Your task to perform on an android device: Show the shopping cart on ebay.com. Add "acer nitro" to the cart on ebay.com, then select checkout. Image 0: 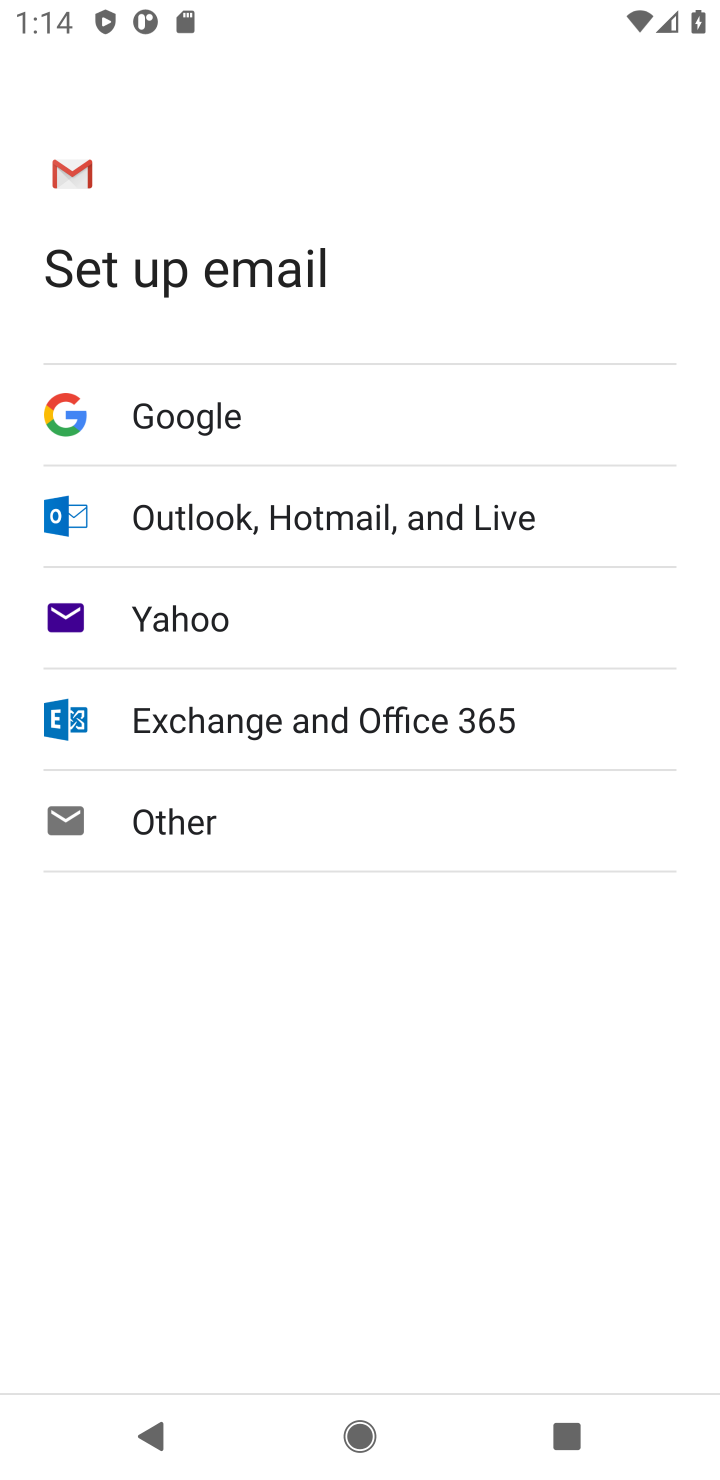
Step 0: press home button
Your task to perform on an android device: Show the shopping cart on ebay.com. Add "acer nitro" to the cart on ebay.com, then select checkout. Image 1: 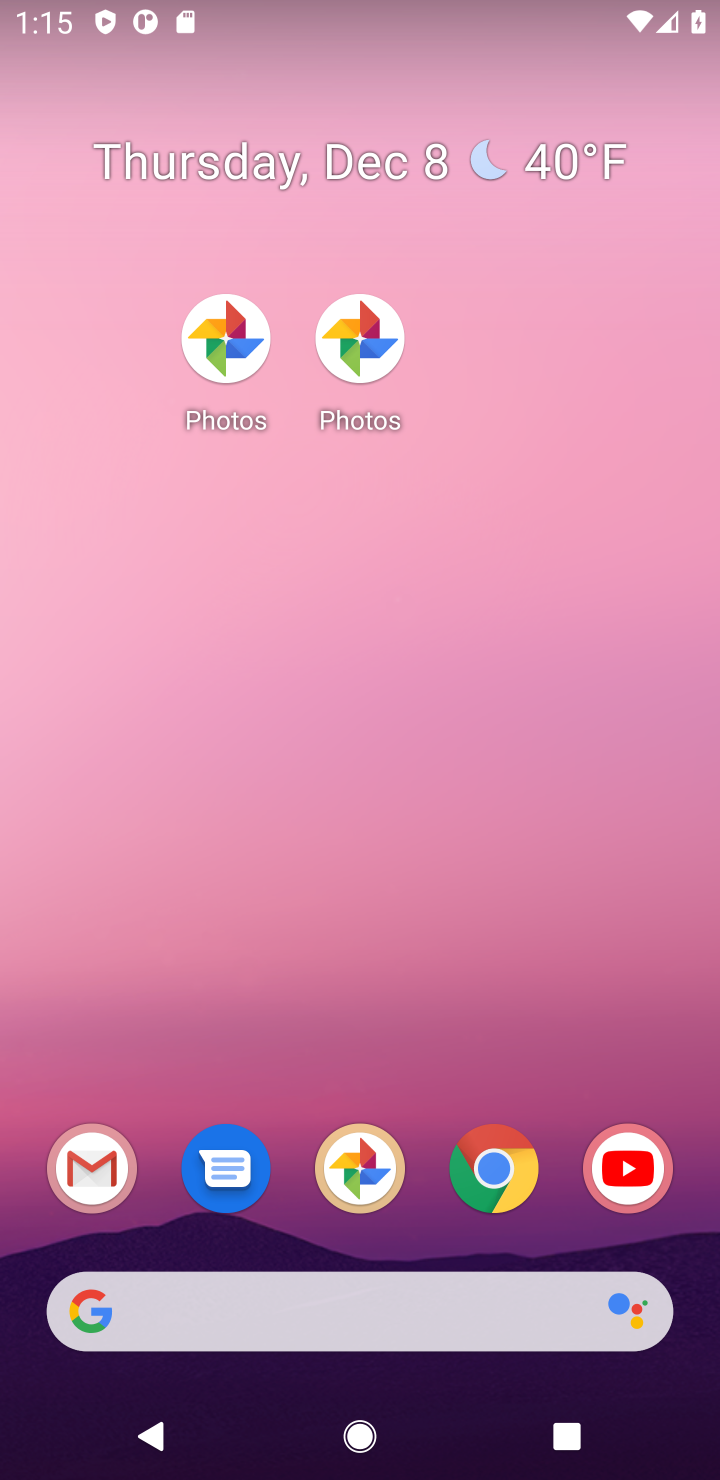
Step 1: drag from (325, 1214) to (327, 359)
Your task to perform on an android device: Show the shopping cart on ebay.com. Add "acer nitro" to the cart on ebay.com, then select checkout. Image 2: 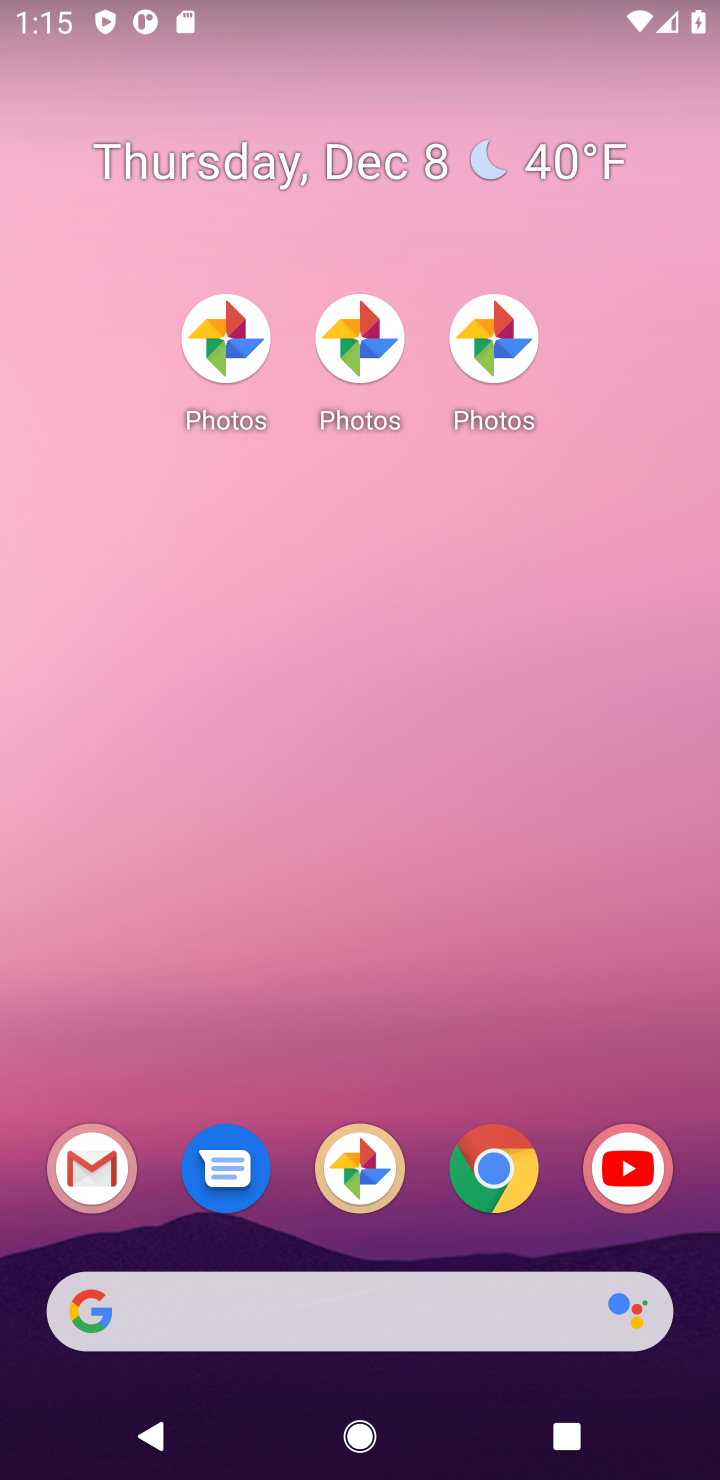
Step 2: drag from (366, 1300) to (396, 229)
Your task to perform on an android device: Show the shopping cart on ebay.com. Add "acer nitro" to the cart on ebay.com, then select checkout. Image 3: 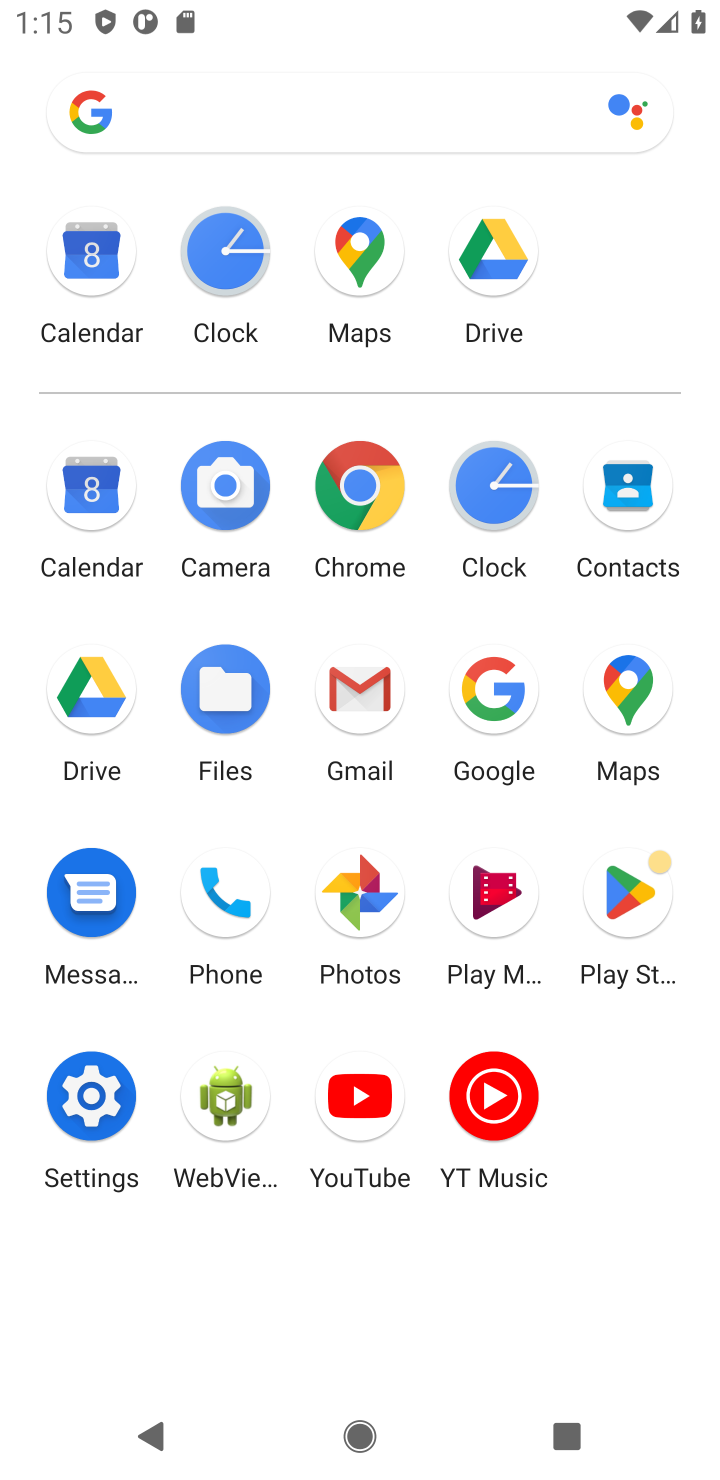
Step 3: click (482, 677)
Your task to perform on an android device: Show the shopping cart on ebay.com. Add "acer nitro" to the cart on ebay.com, then select checkout. Image 4: 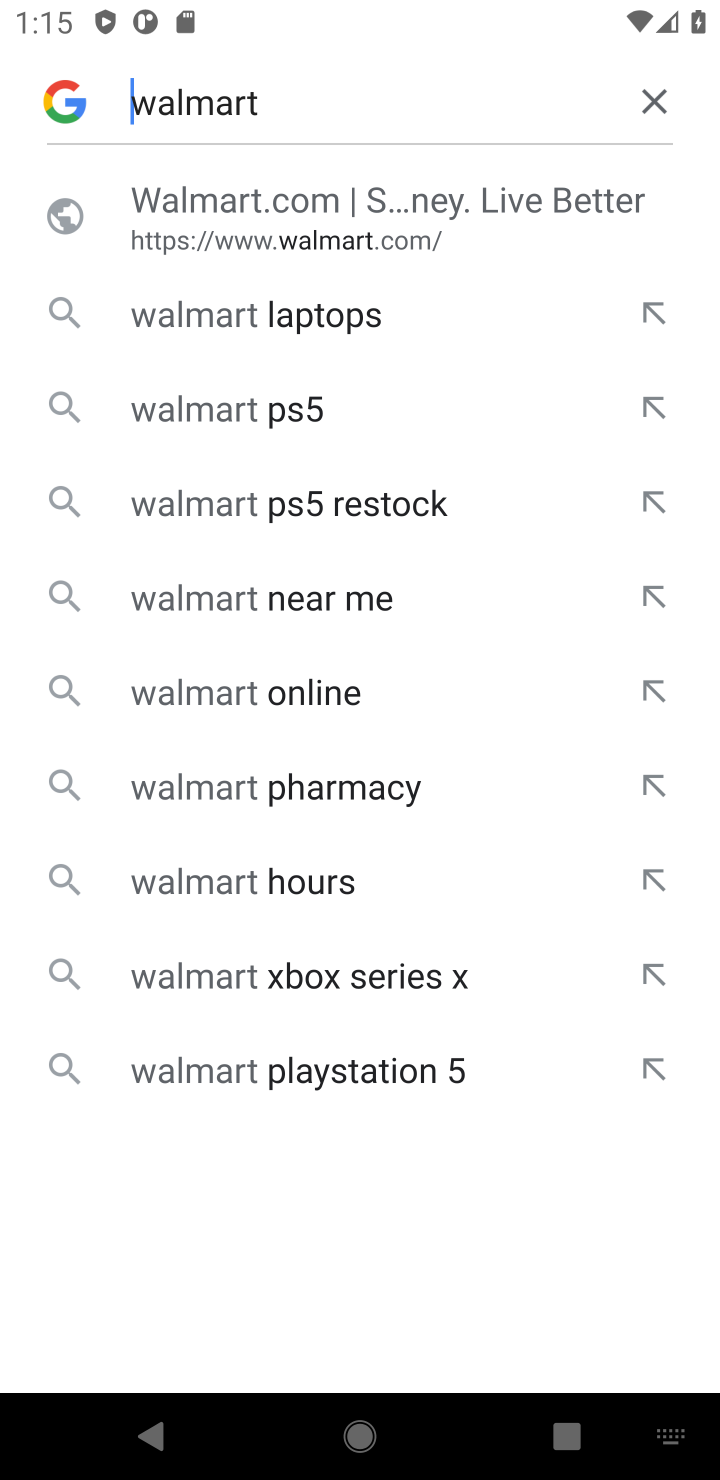
Step 4: click (655, 91)
Your task to perform on an android device: Show the shopping cart on ebay.com. Add "acer nitro" to the cart on ebay.com, then select checkout. Image 5: 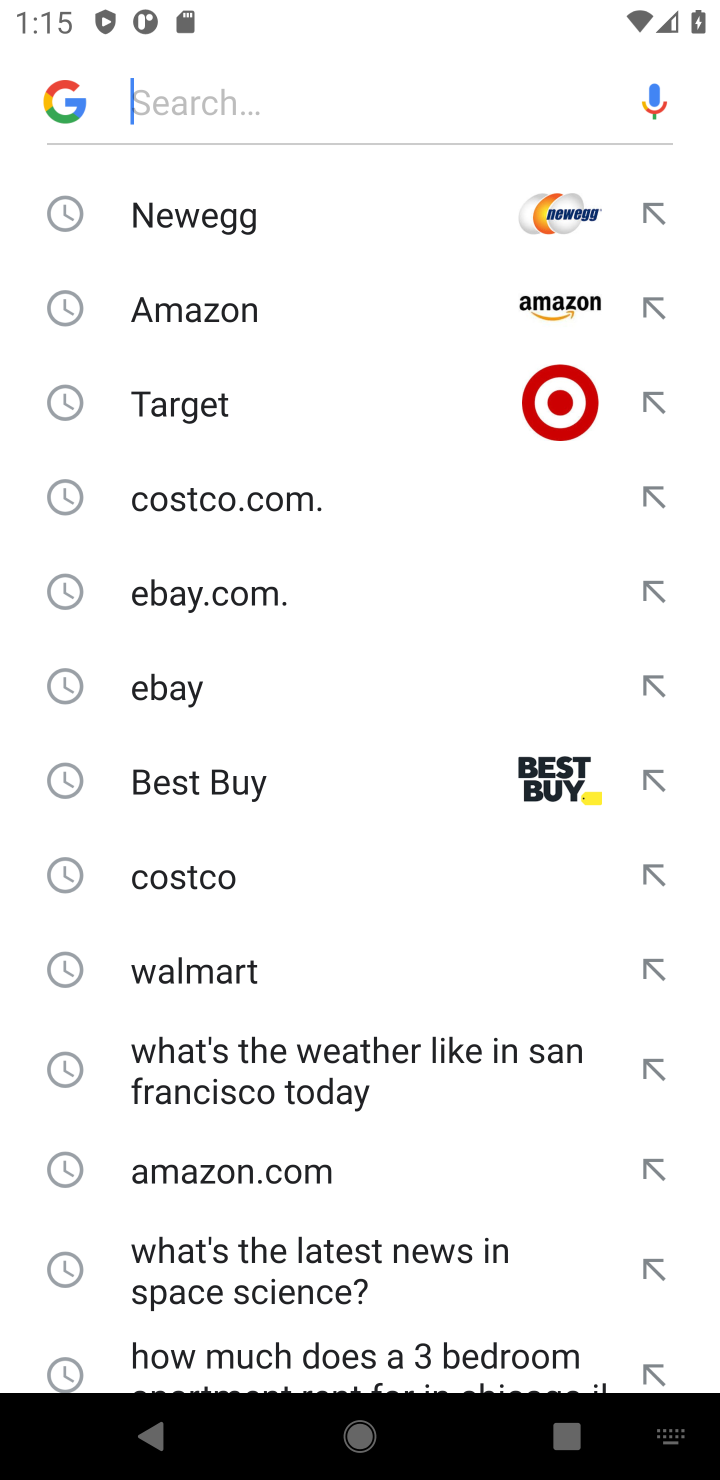
Step 5: click (181, 677)
Your task to perform on an android device: Show the shopping cart on ebay.com. Add "acer nitro" to the cart on ebay.com, then select checkout. Image 6: 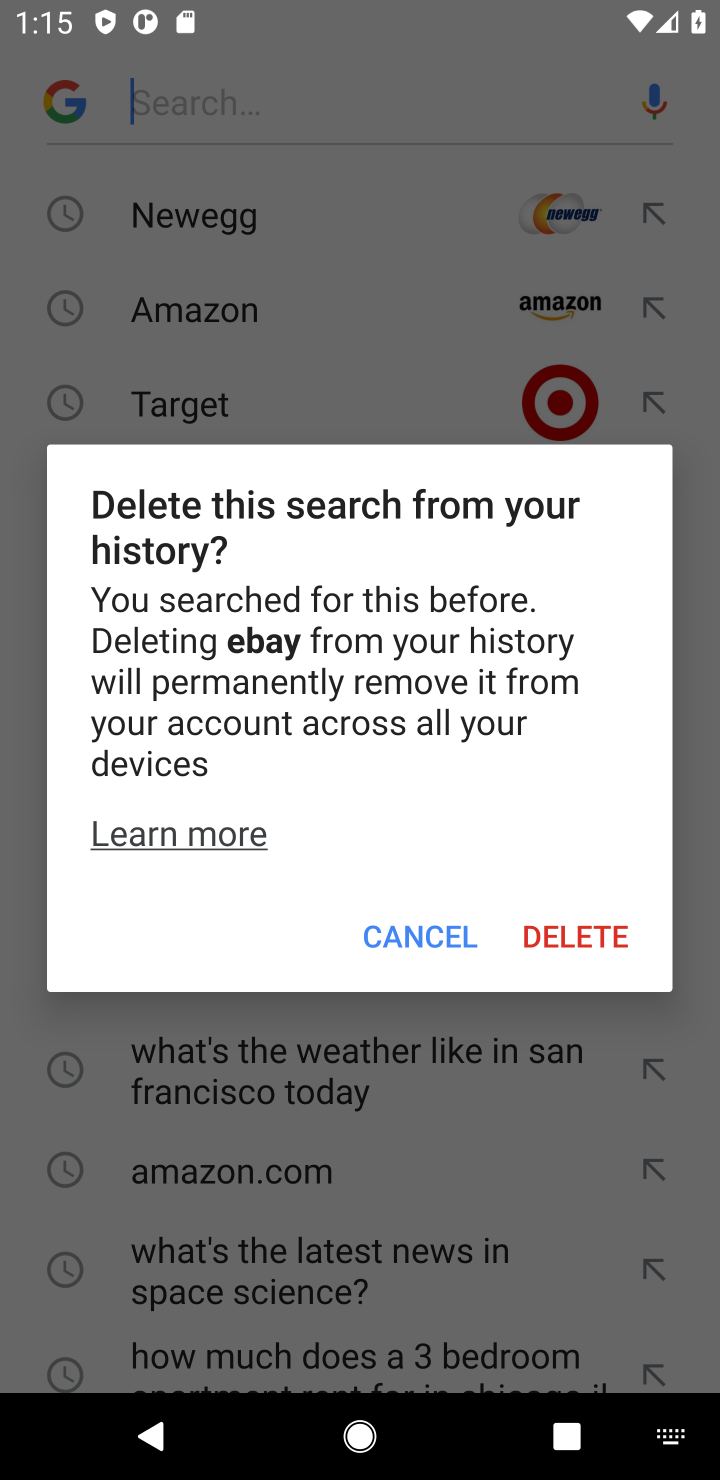
Step 6: click (402, 937)
Your task to perform on an android device: Show the shopping cart on ebay.com. Add "acer nitro" to the cart on ebay.com, then select checkout. Image 7: 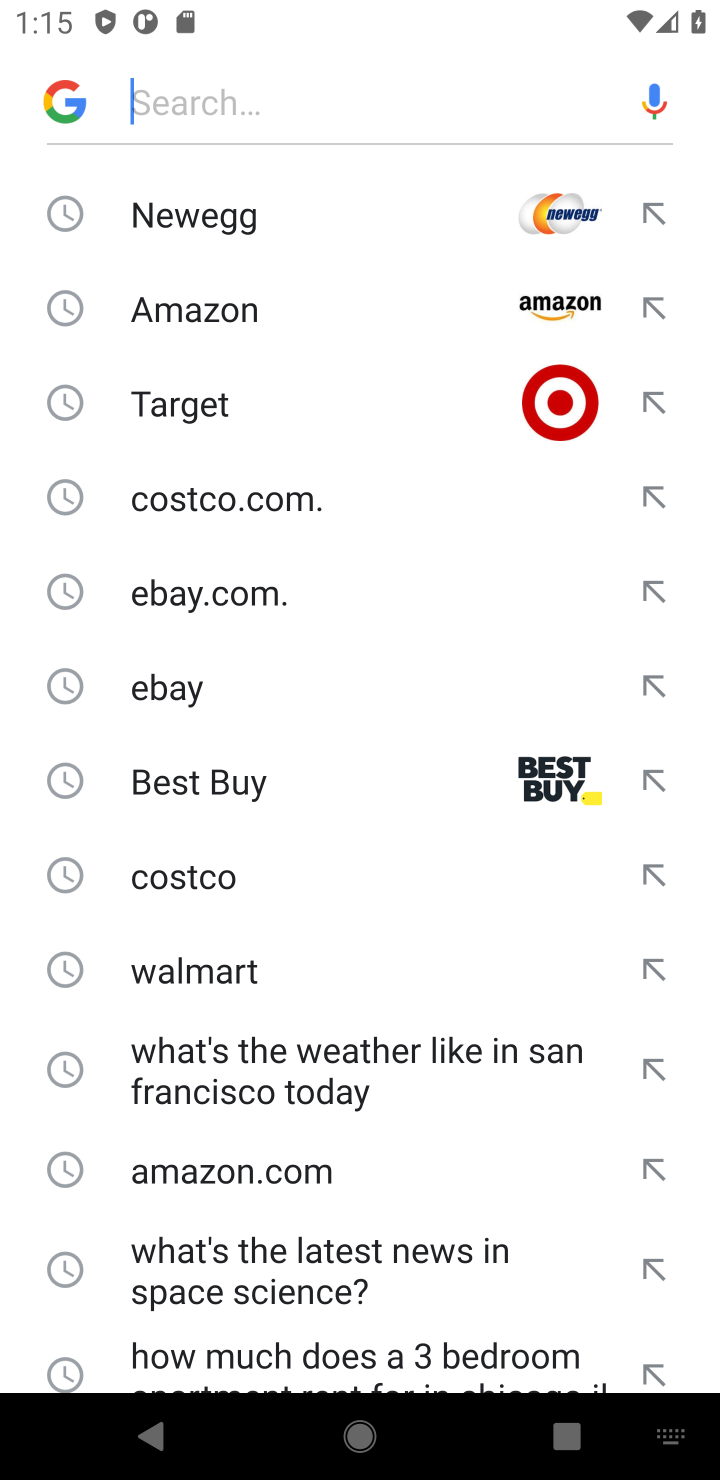
Step 7: click (649, 690)
Your task to perform on an android device: Show the shopping cart on ebay.com. Add "acer nitro" to the cart on ebay.com, then select checkout. Image 8: 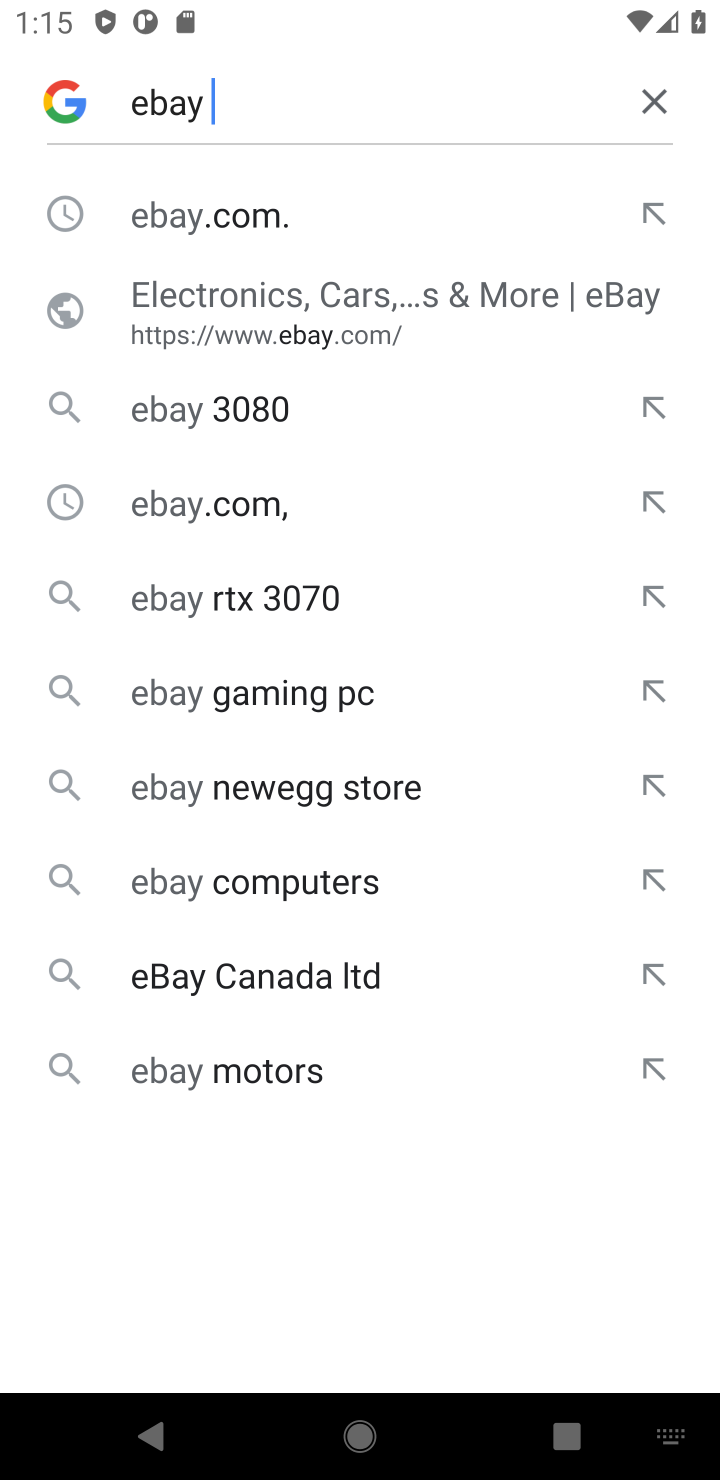
Step 8: click (193, 206)
Your task to perform on an android device: Show the shopping cart on ebay.com. Add "acer nitro" to the cart on ebay.com, then select checkout. Image 9: 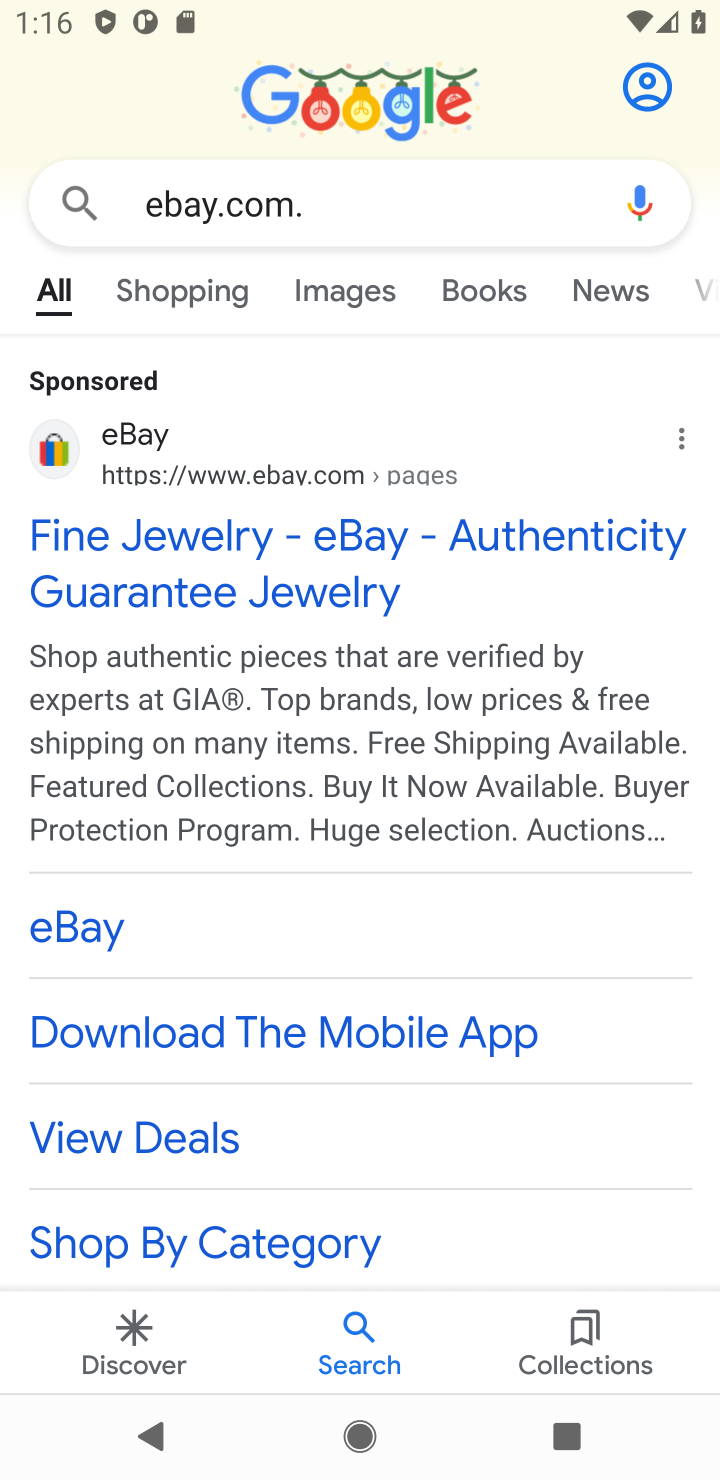
Step 9: click (70, 926)
Your task to perform on an android device: Show the shopping cart on ebay.com. Add "acer nitro" to the cart on ebay.com, then select checkout. Image 10: 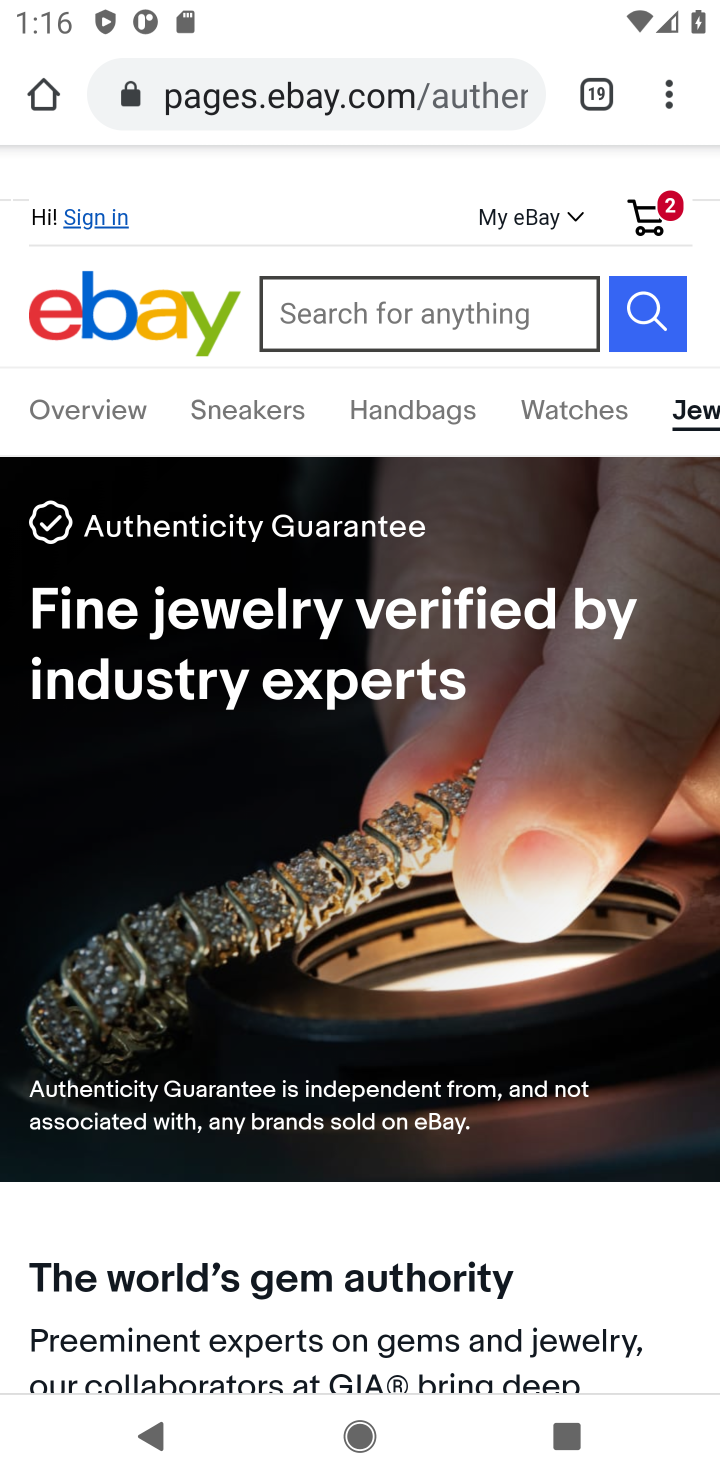
Step 10: click (403, 322)
Your task to perform on an android device: Show the shopping cart on ebay.com. Add "acer nitro" to the cart on ebay.com, then select checkout. Image 11: 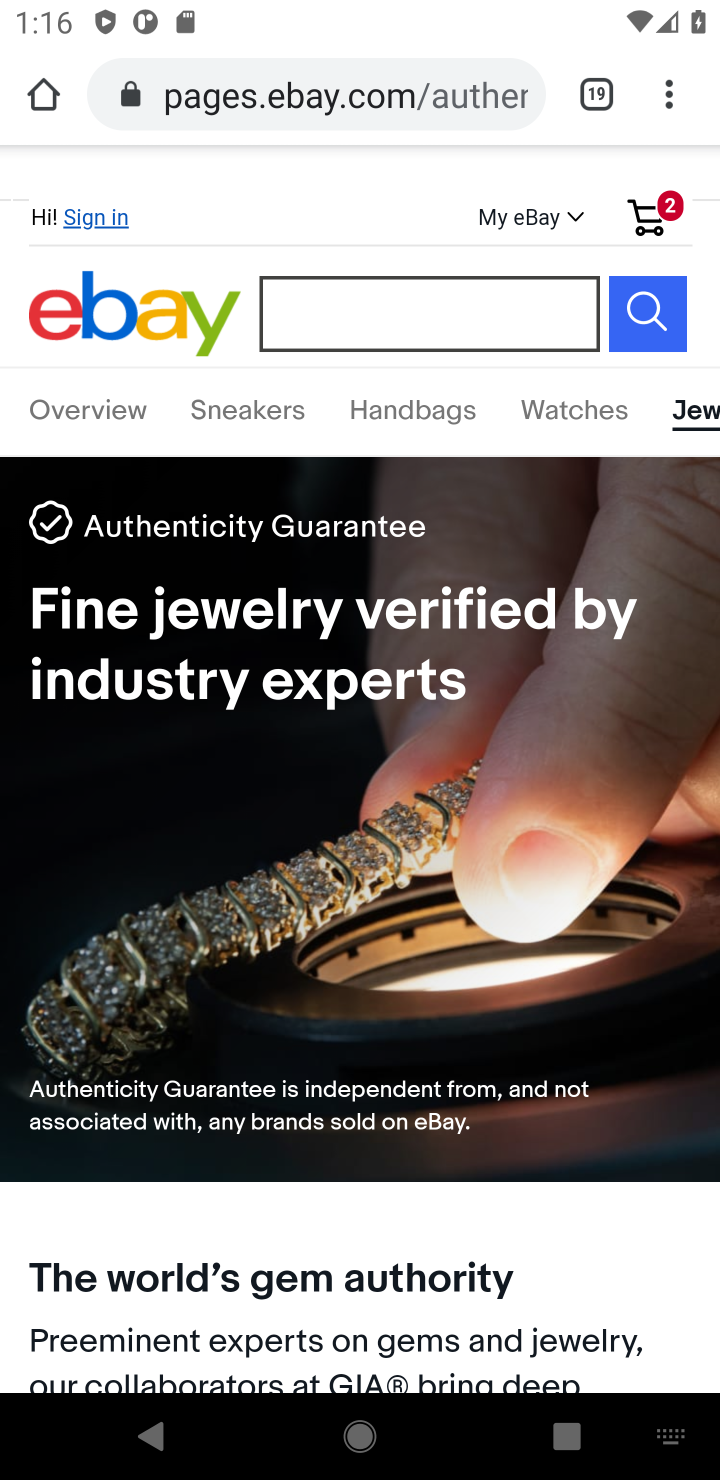
Step 11: type "acer nitro"
Your task to perform on an android device: Show the shopping cart on ebay.com. Add "acer nitro" to the cart on ebay.com, then select checkout. Image 12: 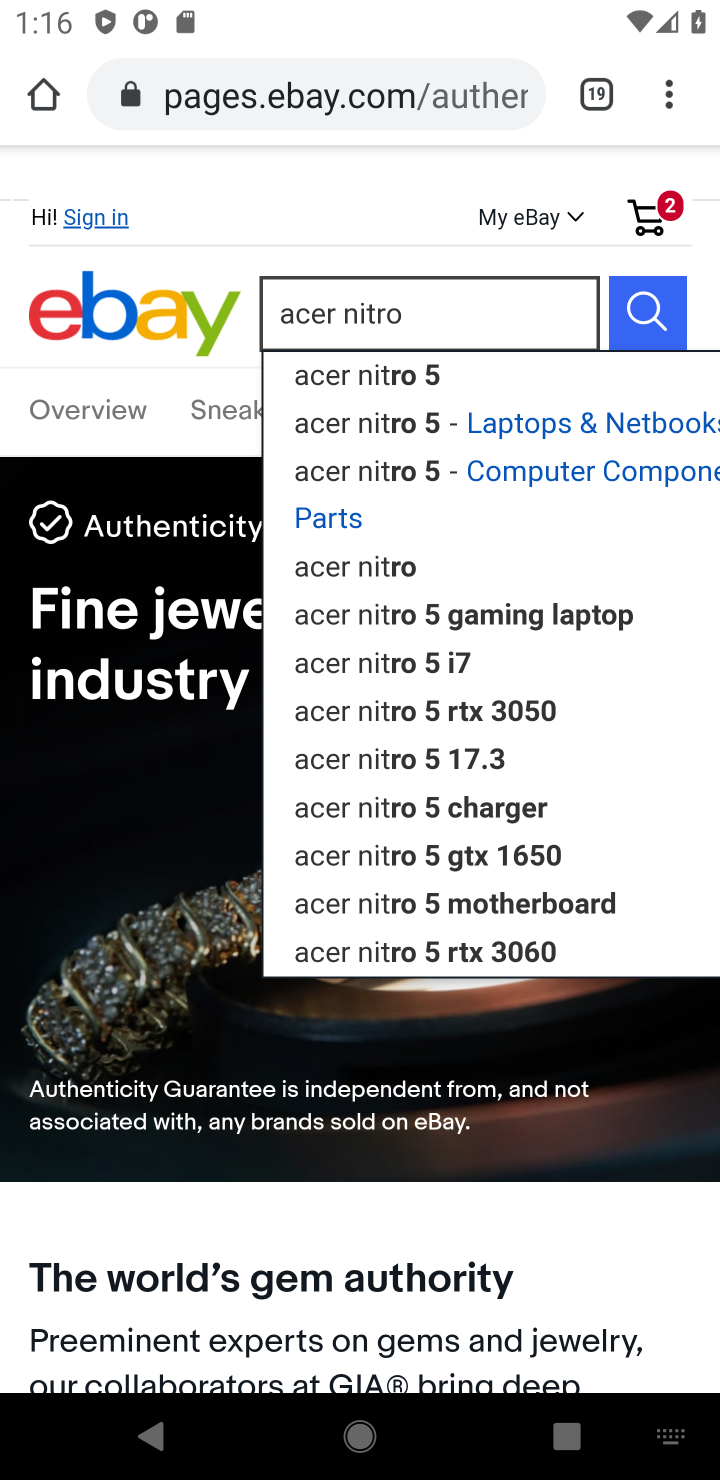
Step 12: click (368, 381)
Your task to perform on an android device: Show the shopping cart on ebay.com. Add "acer nitro" to the cart on ebay.com, then select checkout. Image 13: 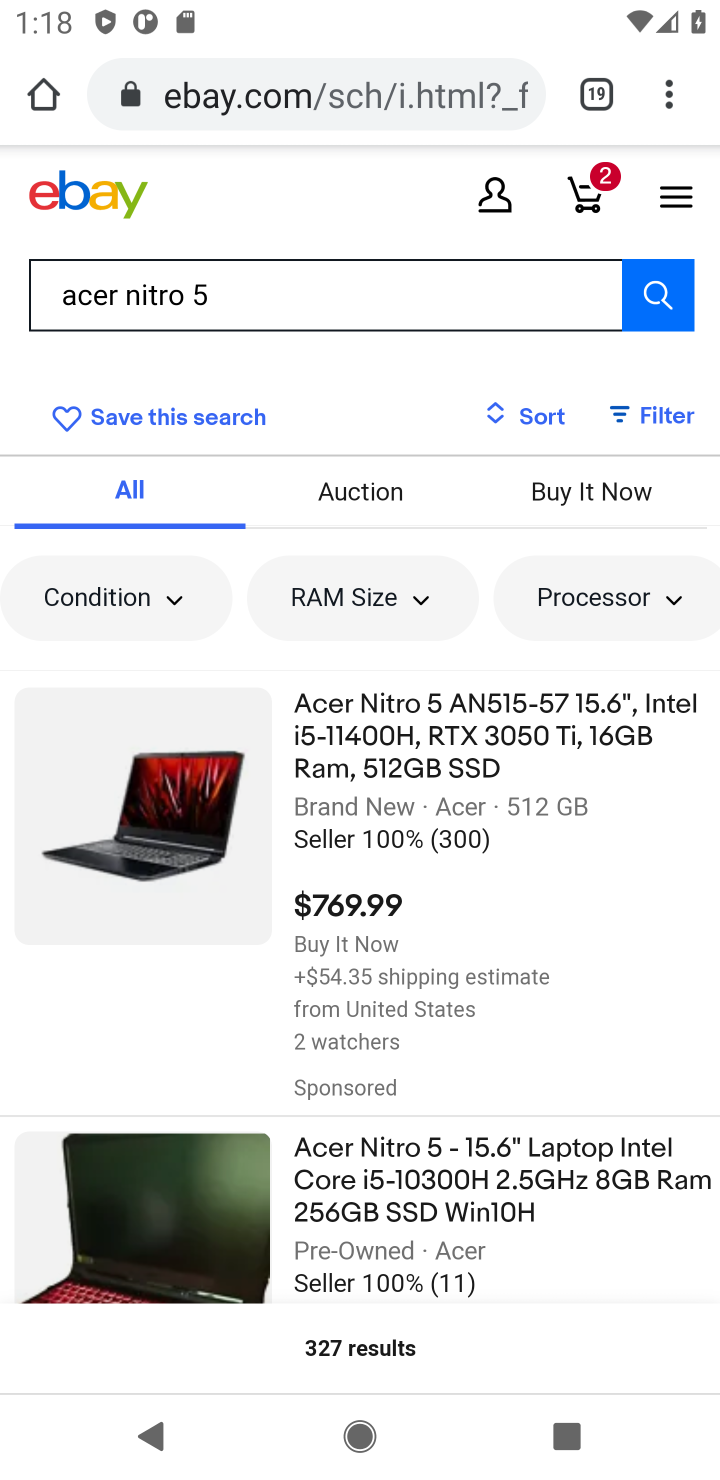
Step 13: click (329, 762)
Your task to perform on an android device: Show the shopping cart on ebay.com. Add "acer nitro" to the cart on ebay.com, then select checkout. Image 14: 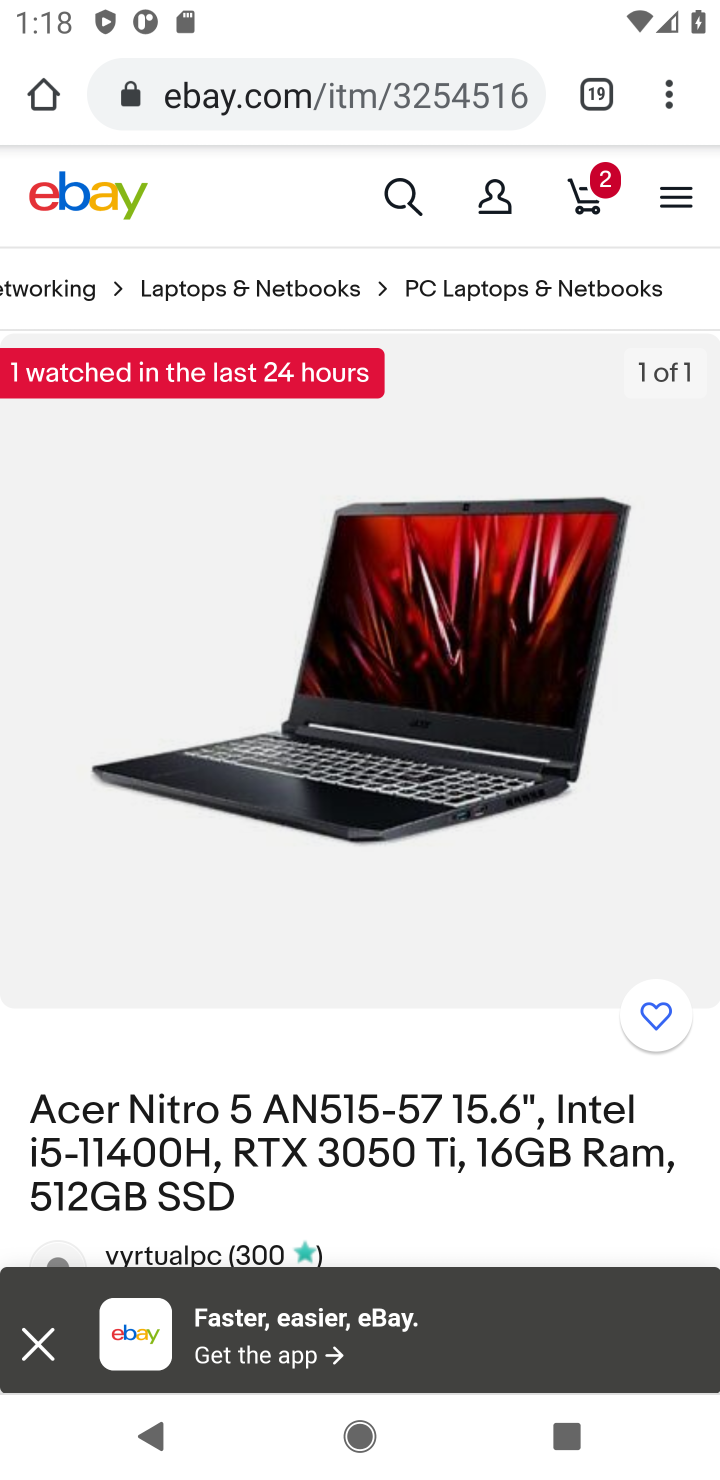
Step 14: click (51, 1352)
Your task to perform on an android device: Show the shopping cart on ebay.com. Add "acer nitro" to the cart on ebay.com, then select checkout. Image 15: 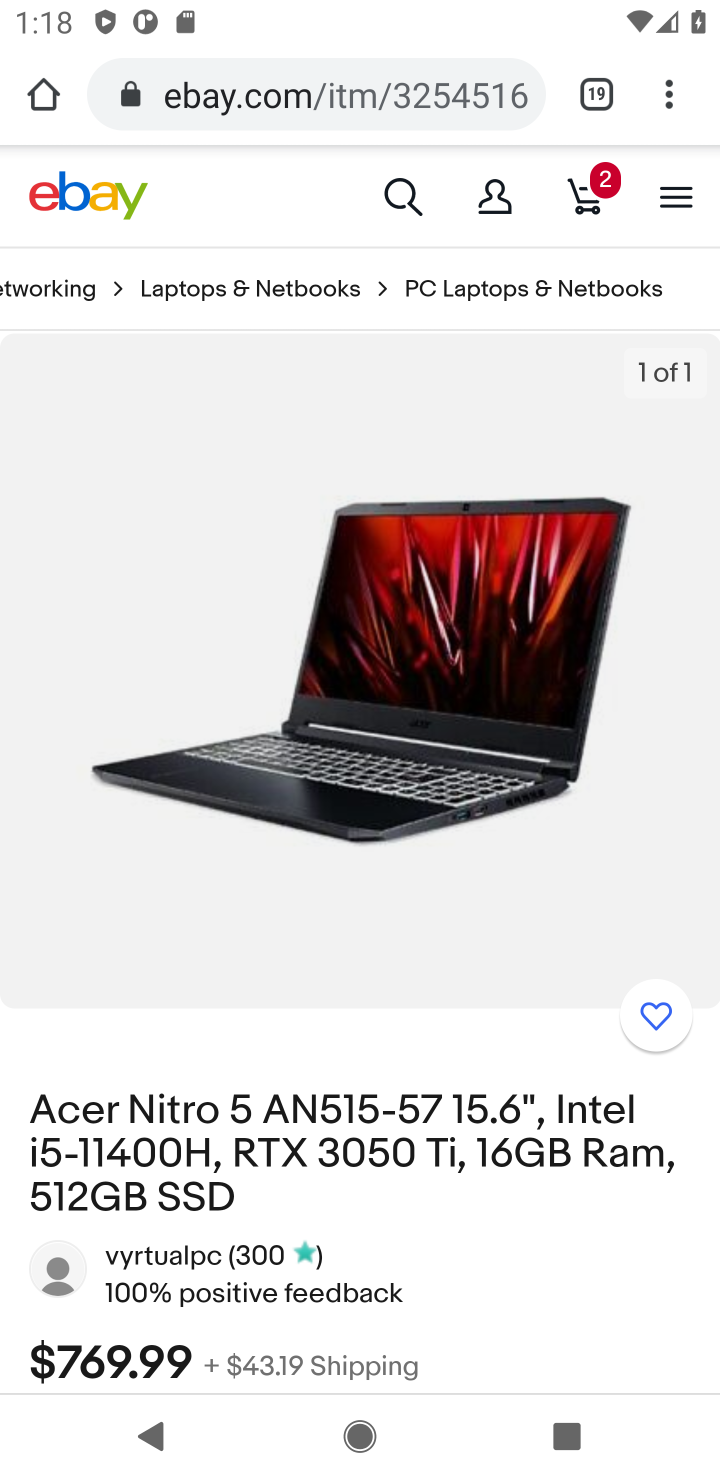
Step 15: drag from (386, 1349) to (417, 673)
Your task to perform on an android device: Show the shopping cart on ebay.com. Add "acer nitro" to the cart on ebay.com, then select checkout. Image 16: 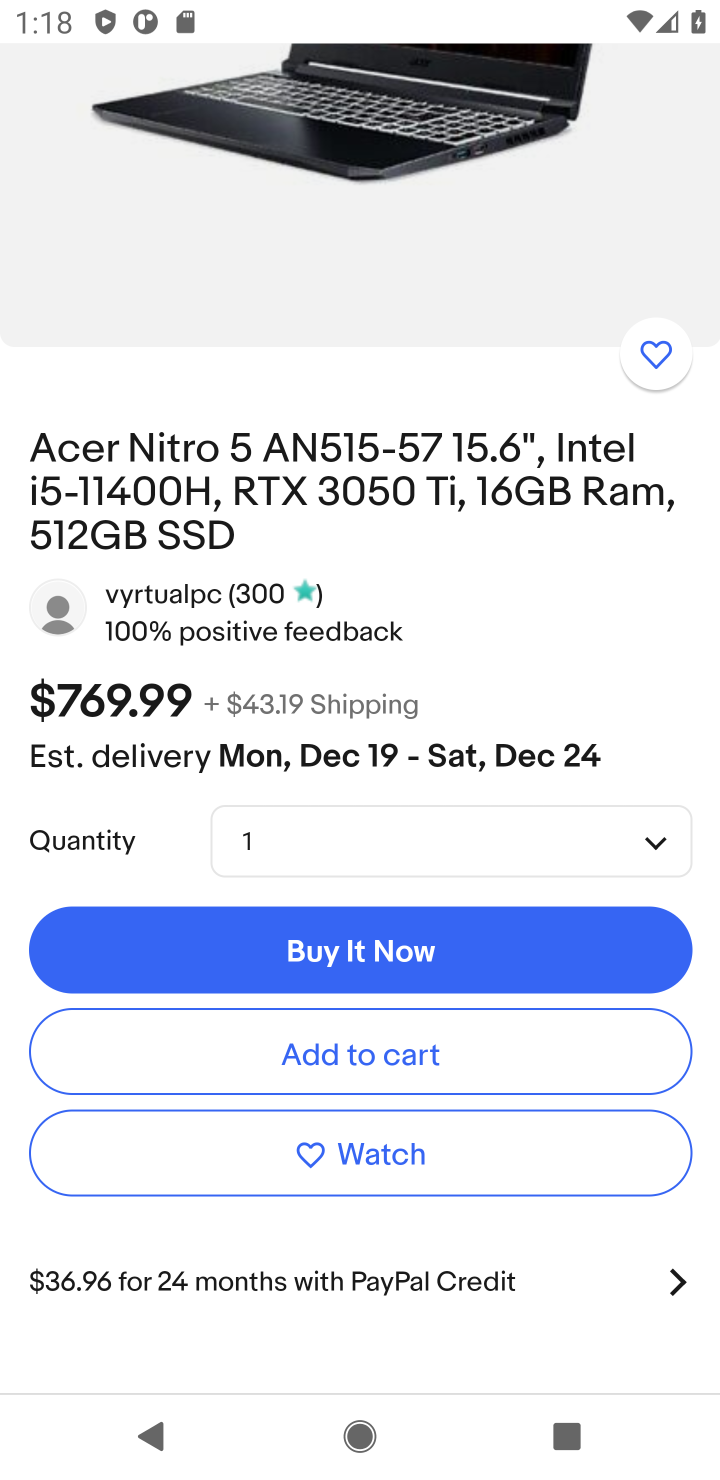
Step 16: click (332, 1059)
Your task to perform on an android device: Show the shopping cart on ebay.com. Add "acer nitro" to the cart on ebay.com, then select checkout. Image 17: 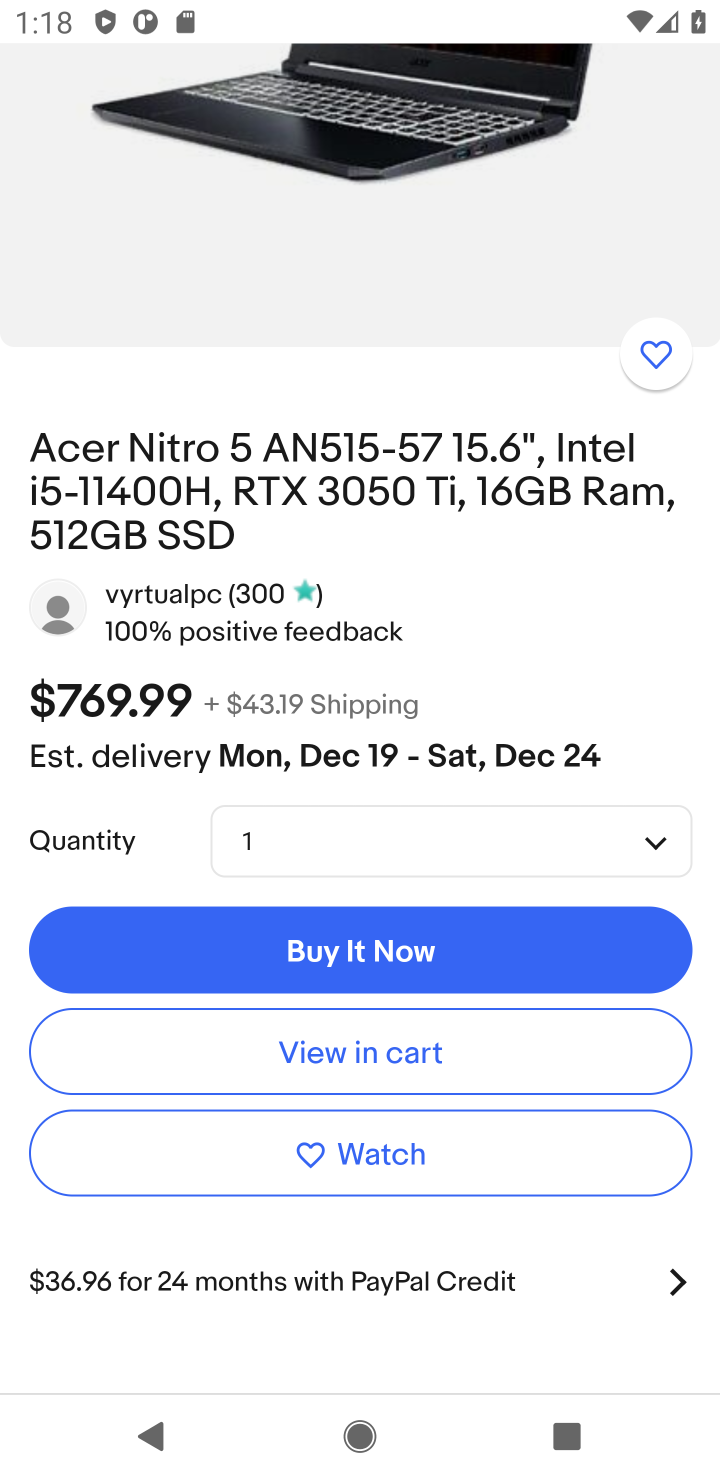
Step 17: click (332, 1059)
Your task to perform on an android device: Show the shopping cart on ebay.com. Add "acer nitro" to the cart on ebay.com, then select checkout. Image 18: 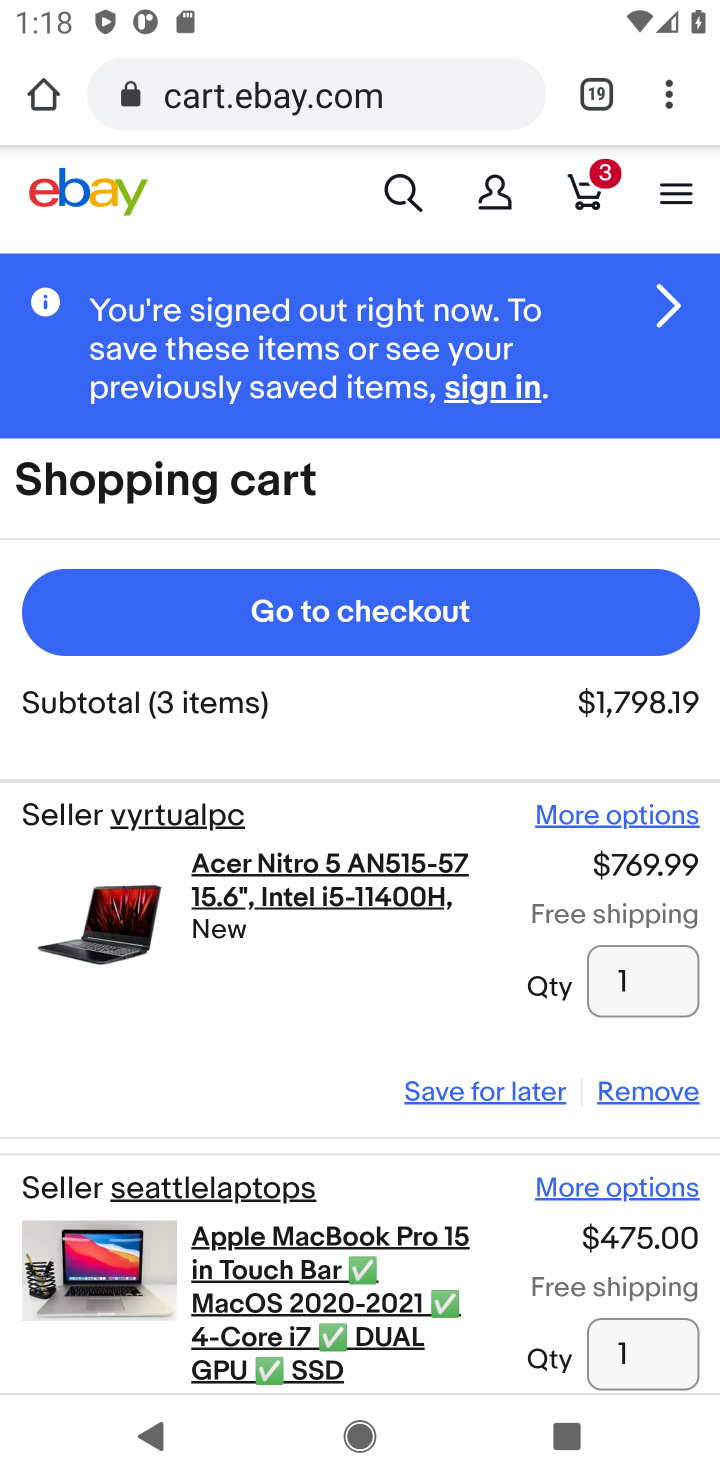
Step 18: click (421, 621)
Your task to perform on an android device: Show the shopping cart on ebay.com. Add "acer nitro" to the cart on ebay.com, then select checkout. Image 19: 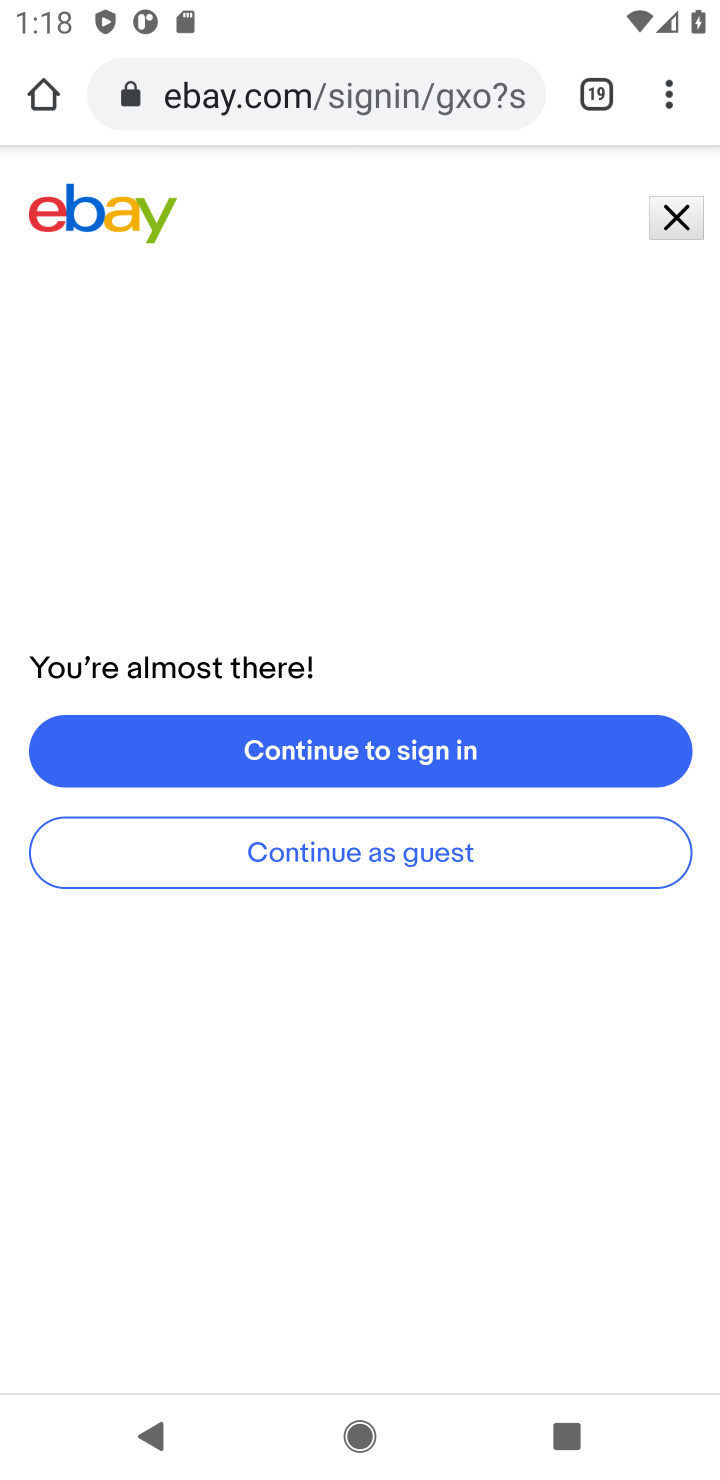
Step 19: task complete